Your task to perform on an android device: change the clock display to analog Image 0: 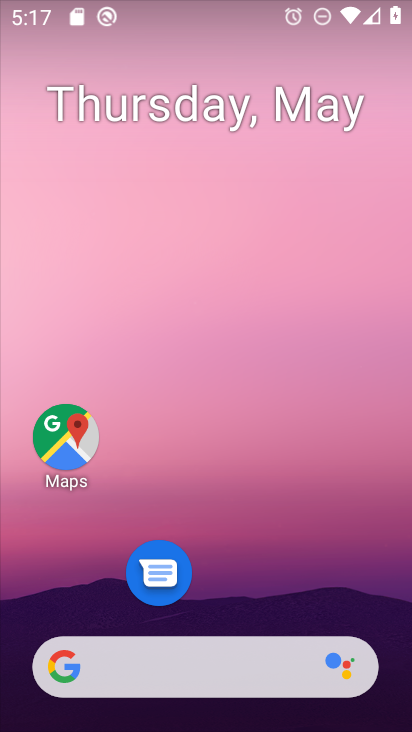
Step 0: drag from (252, 579) to (201, 33)
Your task to perform on an android device: change the clock display to analog Image 1: 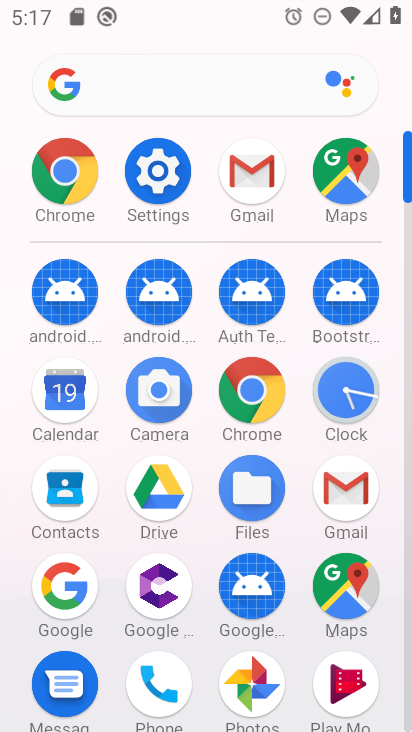
Step 1: click (342, 406)
Your task to perform on an android device: change the clock display to analog Image 2: 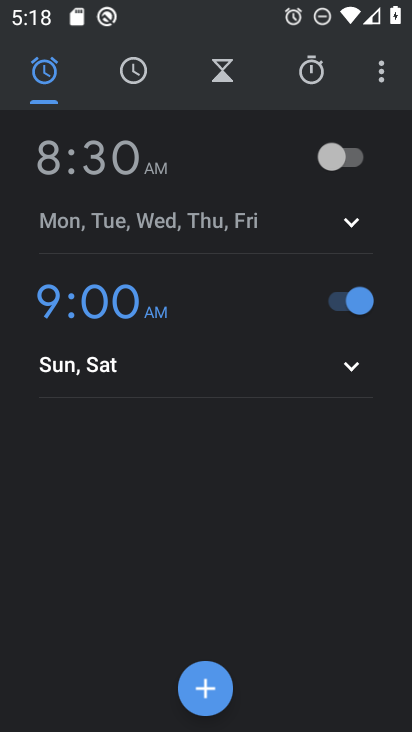
Step 2: click (383, 79)
Your task to perform on an android device: change the clock display to analog Image 3: 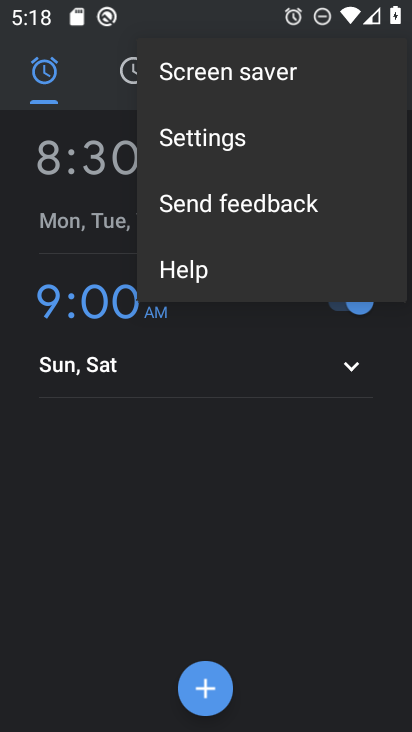
Step 3: click (211, 136)
Your task to perform on an android device: change the clock display to analog Image 4: 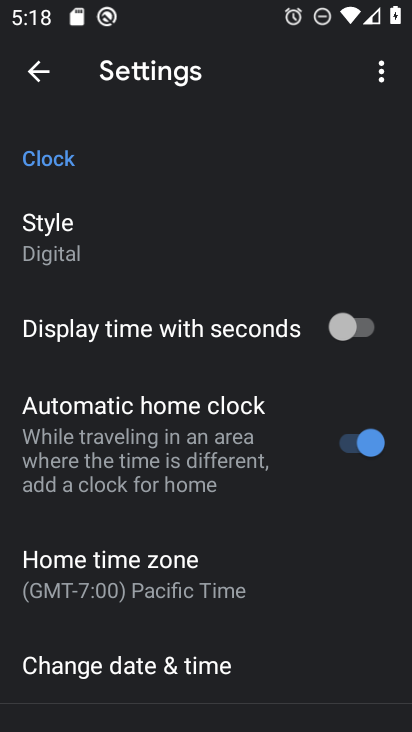
Step 4: click (68, 241)
Your task to perform on an android device: change the clock display to analog Image 5: 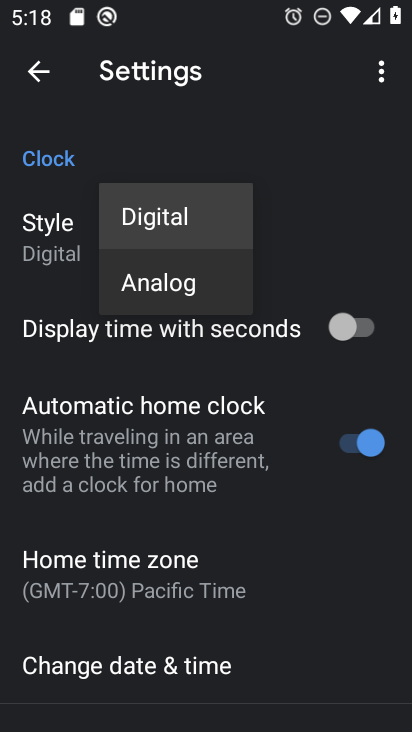
Step 5: click (124, 281)
Your task to perform on an android device: change the clock display to analog Image 6: 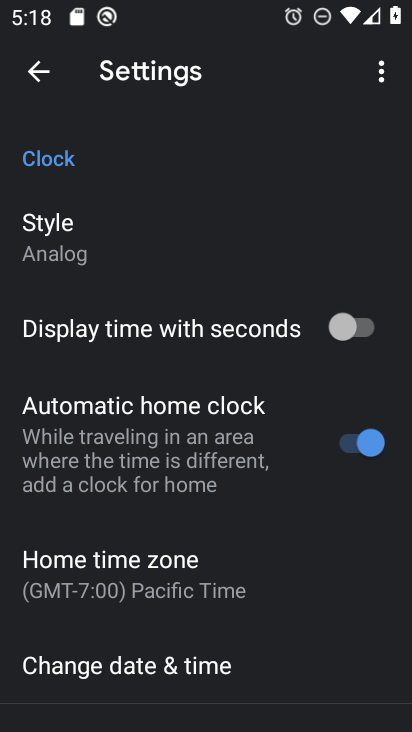
Step 6: task complete